Your task to perform on an android device: What's the weather? Image 0: 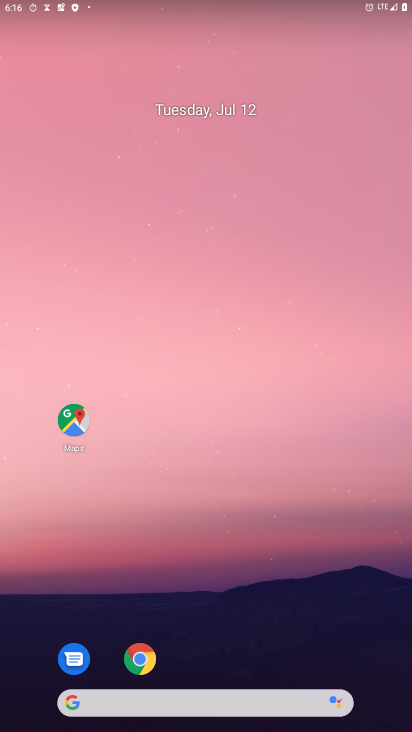
Step 0: drag from (210, 334) to (210, 253)
Your task to perform on an android device: What's the weather? Image 1: 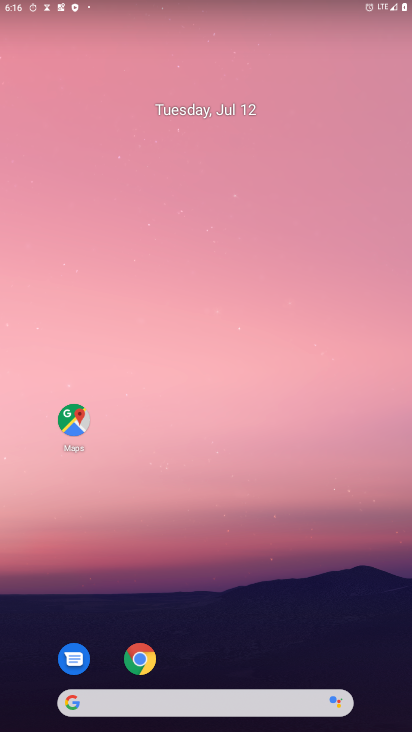
Step 1: drag from (232, 534) to (228, 177)
Your task to perform on an android device: What's the weather? Image 2: 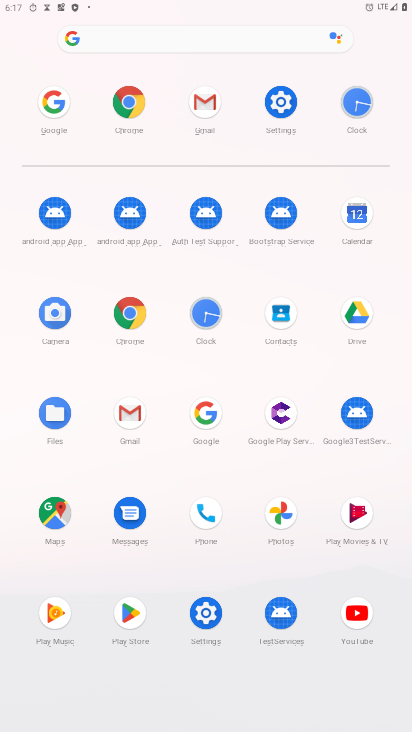
Step 2: click (202, 415)
Your task to perform on an android device: What's the weather? Image 3: 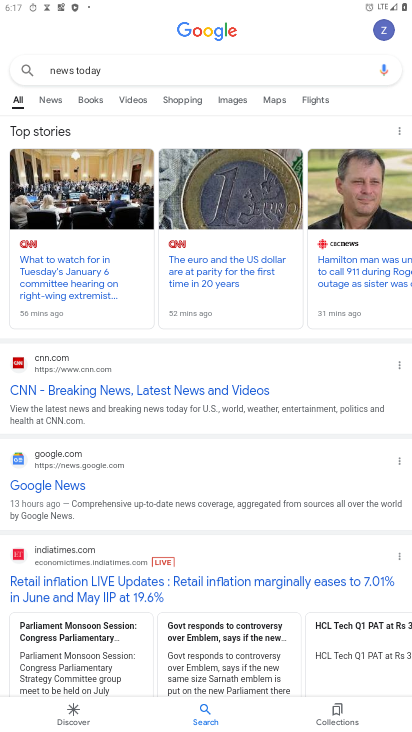
Step 3: click (136, 69)
Your task to perform on an android device: What's the weather? Image 4: 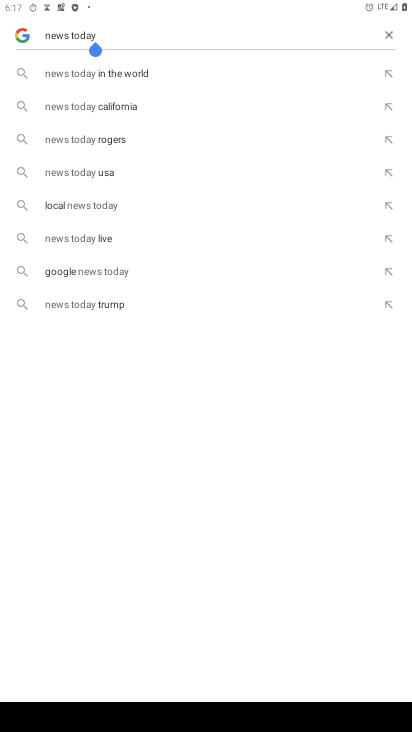
Step 4: click (384, 32)
Your task to perform on an android device: What's the weather? Image 5: 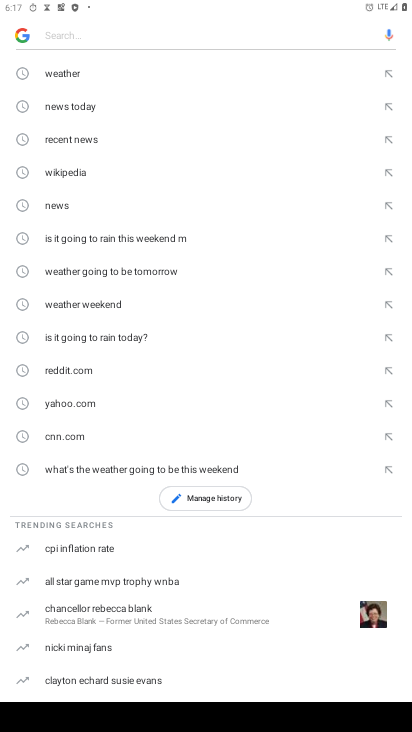
Step 5: click (79, 76)
Your task to perform on an android device: What's the weather? Image 6: 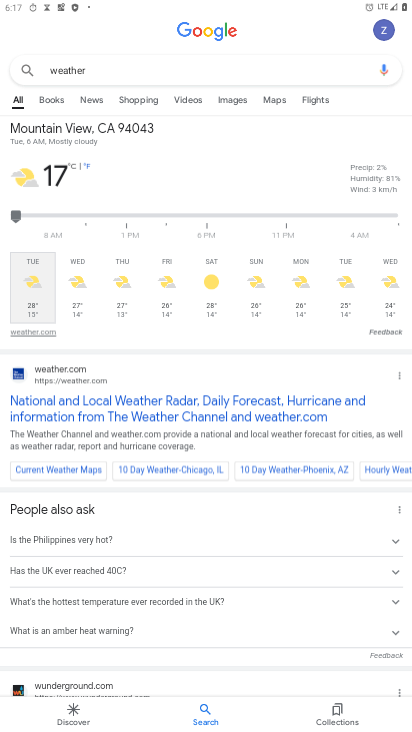
Step 6: task complete